Your task to perform on an android device: Go to Amazon Image 0: 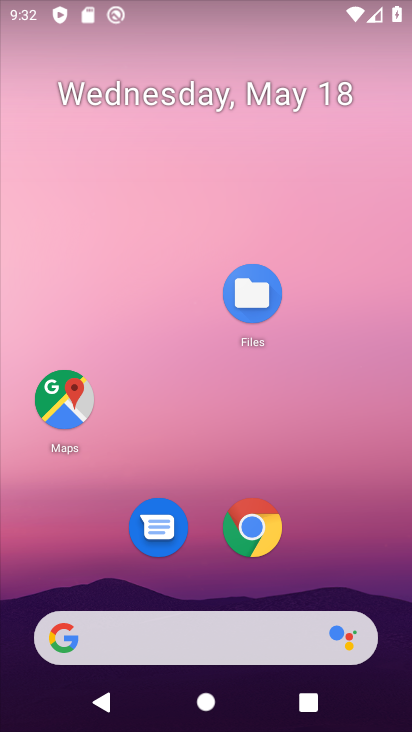
Step 0: click (268, 528)
Your task to perform on an android device: Go to Amazon Image 1: 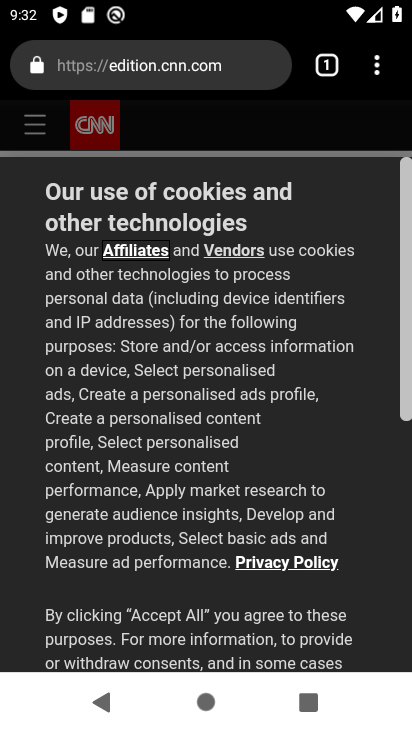
Step 1: click (327, 68)
Your task to perform on an android device: Go to Amazon Image 2: 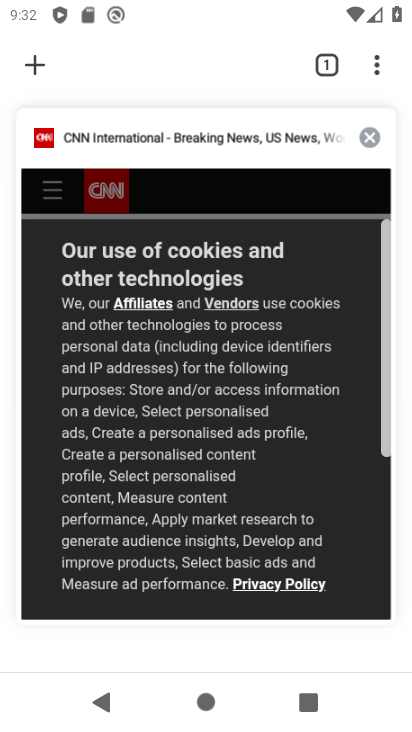
Step 2: click (30, 66)
Your task to perform on an android device: Go to Amazon Image 3: 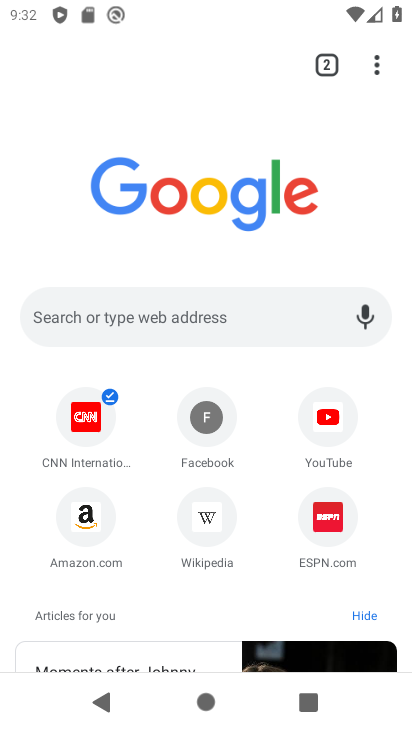
Step 3: click (86, 529)
Your task to perform on an android device: Go to Amazon Image 4: 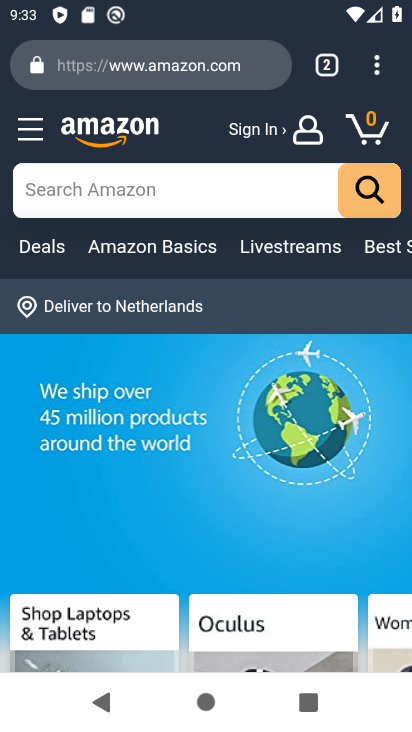
Step 4: task complete